Your task to perform on an android device: turn on translation in the chrome app Image 0: 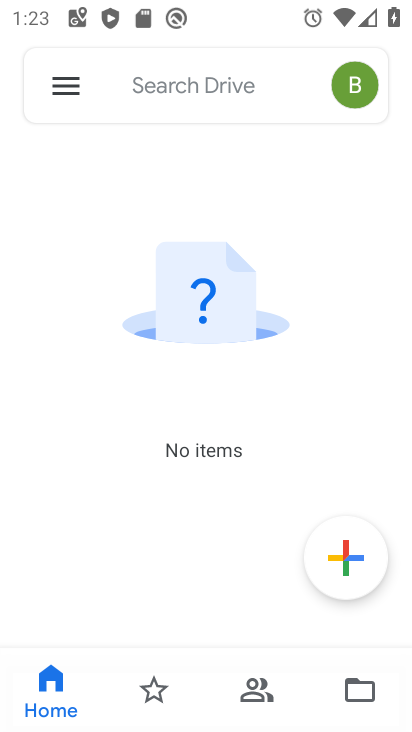
Step 0: press home button
Your task to perform on an android device: turn on translation in the chrome app Image 1: 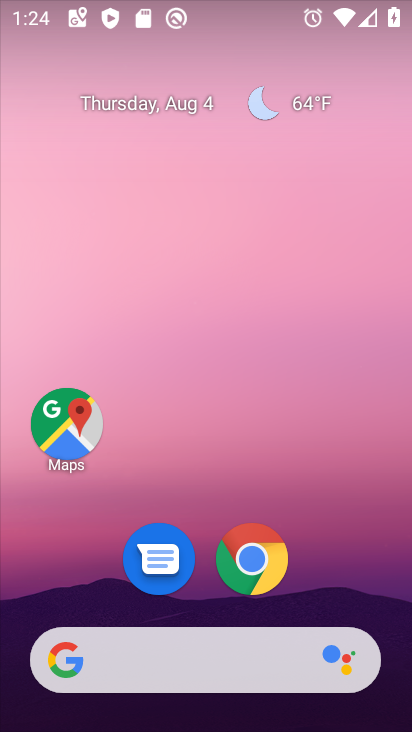
Step 1: click (251, 560)
Your task to perform on an android device: turn on translation in the chrome app Image 2: 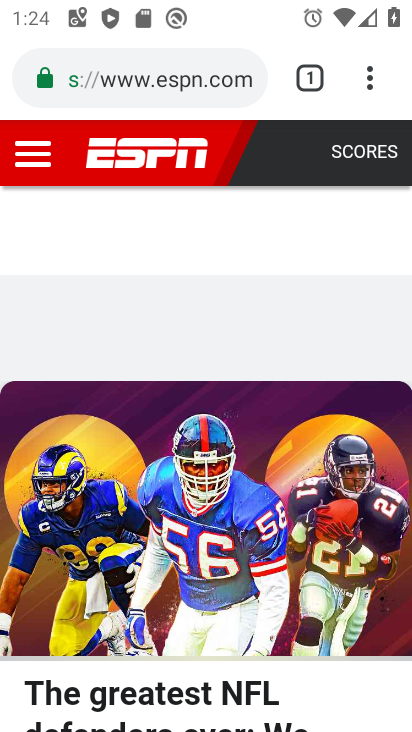
Step 2: click (369, 84)
Your task to perform on an android device: turn on translation in the chrome app Image 3: 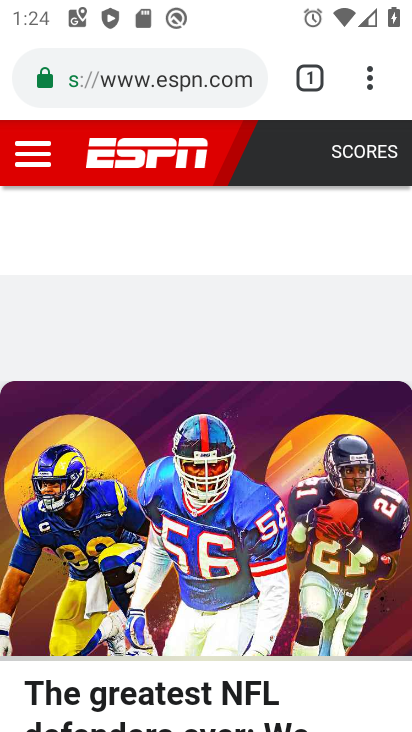
Step 3: click (369, 79)
Your task to perform on an android device: turn on translation in the chrome app Image 4: 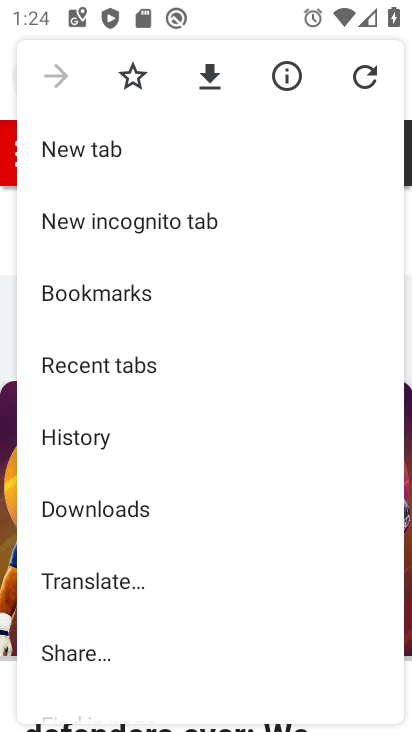
Step 4: drag from (91, 477) to (160, 385)
Your task to perform on an android device: turn on translation in the chrome app Image 5: 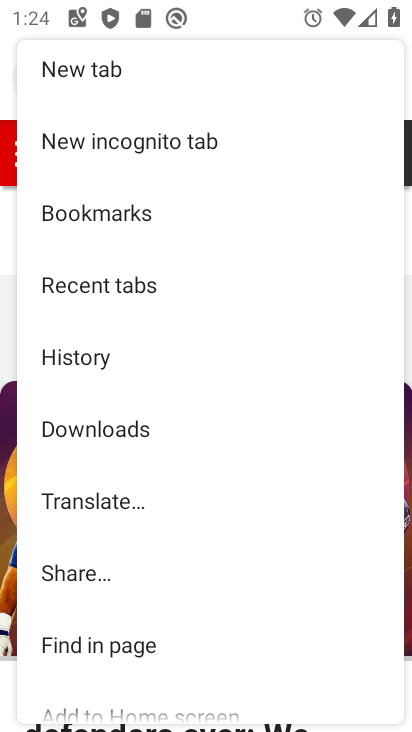
Step 5: drag from (101, 551) to (184, 435)
Your task to perform on an android device: turn on translation in the chrome app Image 6: 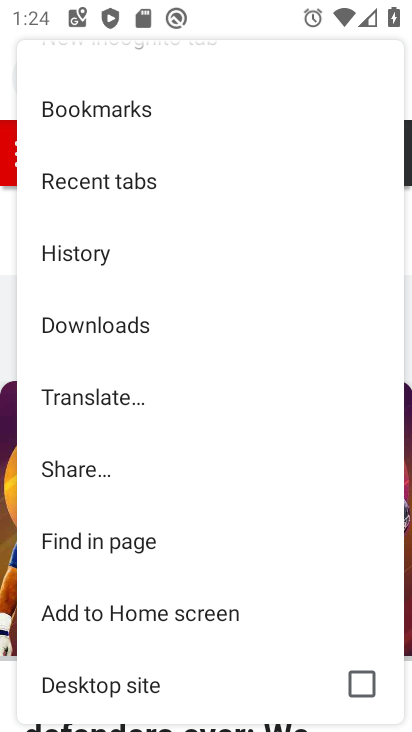
Step 6: drag from (113, 577) to (194, 458)
Your task to perform on an android device: turn on translation in the chrome app Image 7: 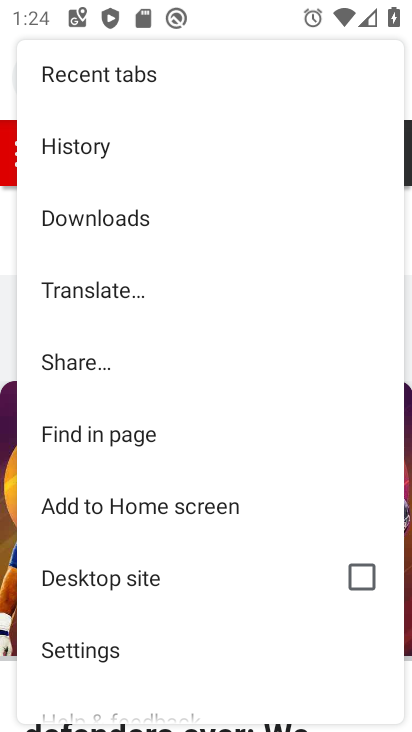
Step 7: drag from (121, 603) to (236, 439)
Your task to perform on an android device: turn on translation in the chrome app Image 8: 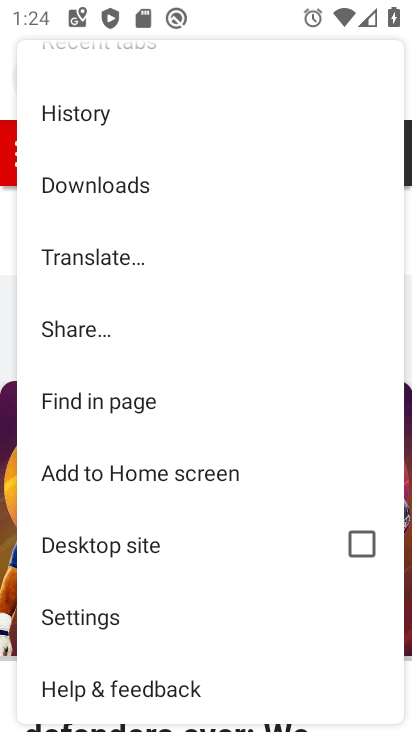
Step 8: click (79, 623)
Your task to perform on an android device: turn on translation in the chrome app Image 9: 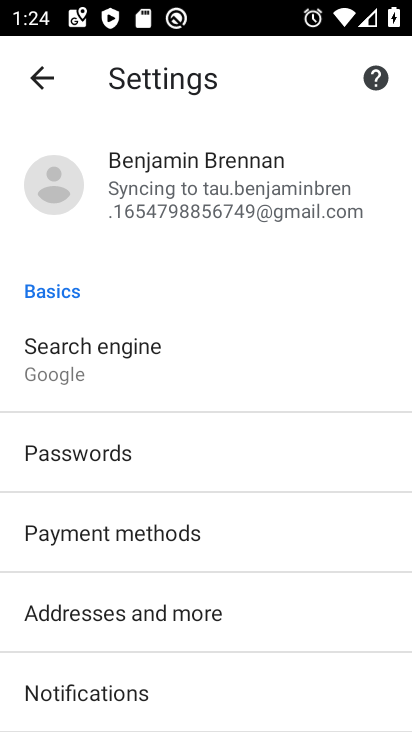
Step 9: drag from (113, 548) to (171, 463)
Your task to perform on an android device: turn on translation in the chrome app Image 10: 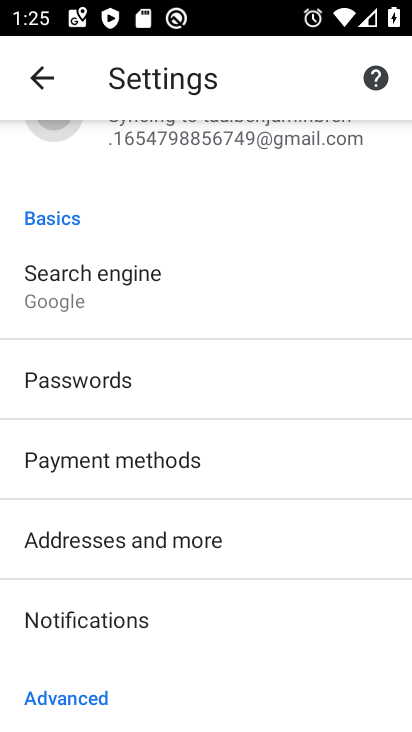
Step 10: drag from (149, 583) to (233, 449)
Your task to perform on an android device: turn on translation in the chrome app Image 11: 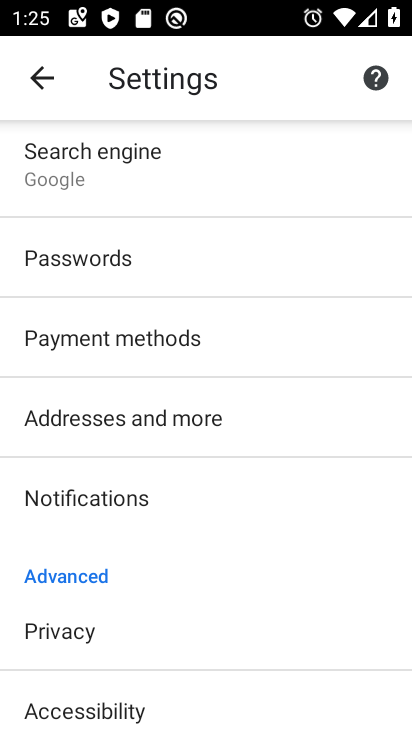
Step 11: drag from (124, 549) to (209, 457)
Your task to perform on an android device: turn on translation in the chrome app Image 12: 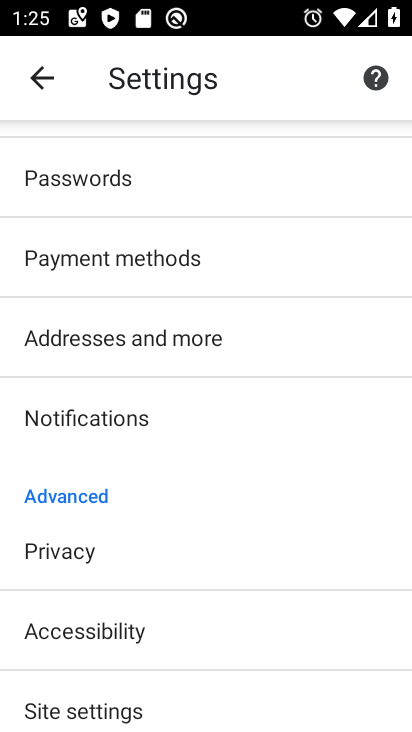
Step 12: drag from (136, 475) to (196, 406)
Your task to perform on an android device: turn on translation in the chrome app Image 13: 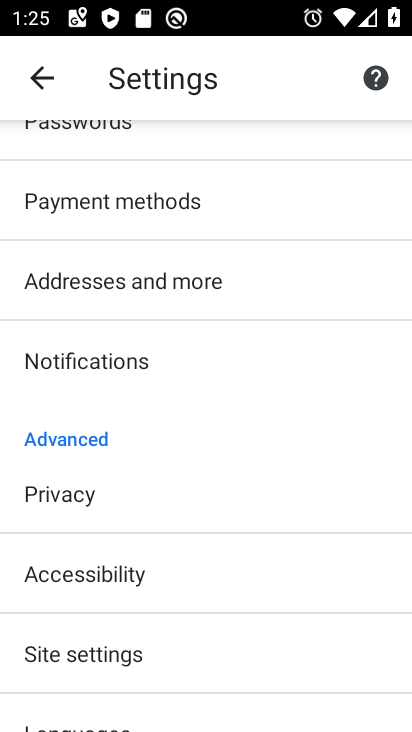
Step 13: drag from (147, 474) to (230, 371)
Your task to perform on an android device: turn on translation in the chrome app Image 14: 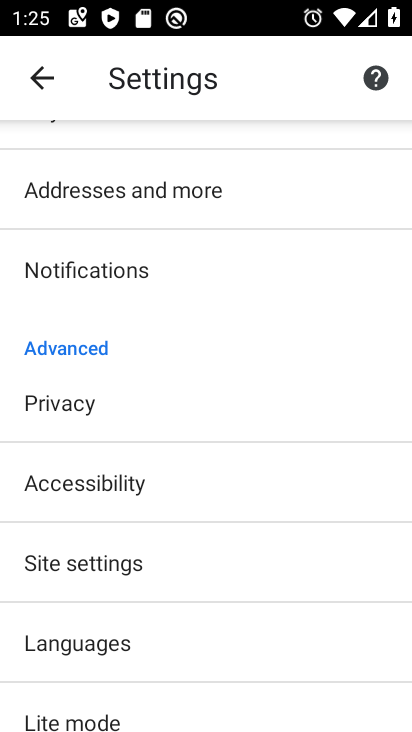
Step 14: drag from (102, 524) to (153, 442)
Your task to perform on an android device: turn on translation in the chrome app Image 15: 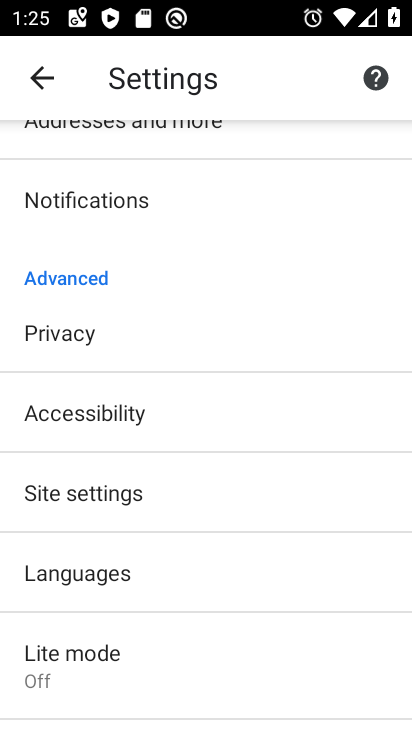
Step 15: click (93, 583)
Your task to perform on an android device: turn on translation in the chrome app Image 16: 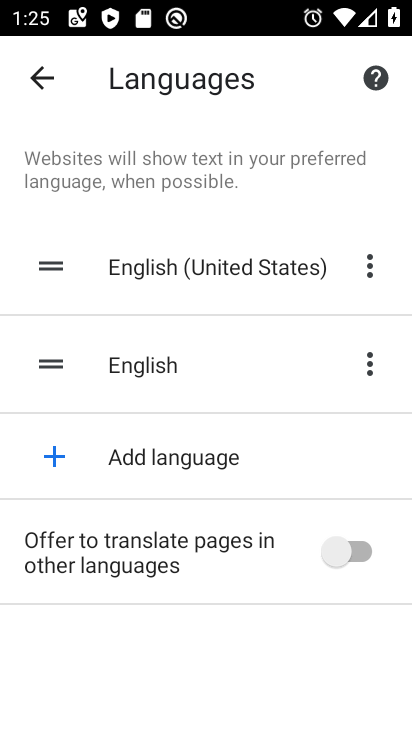
Step 16: click (343, 563)
Your task to perform on an android device: turn on translation in the chrome app Image 17: 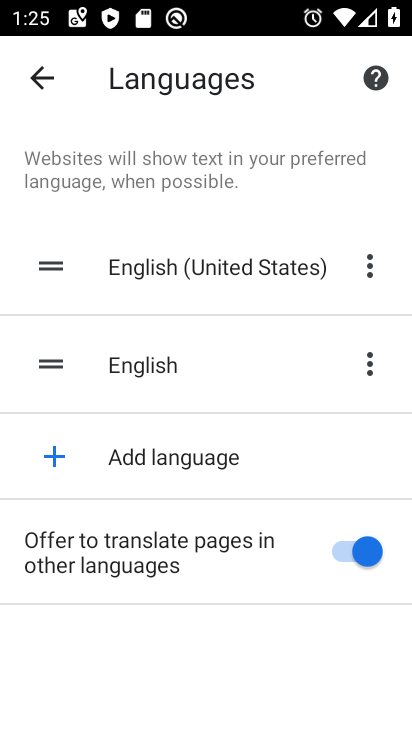
Step 17: task complete